Your task to perform on an android device: choose inbox layout in the gmail app Image 0: 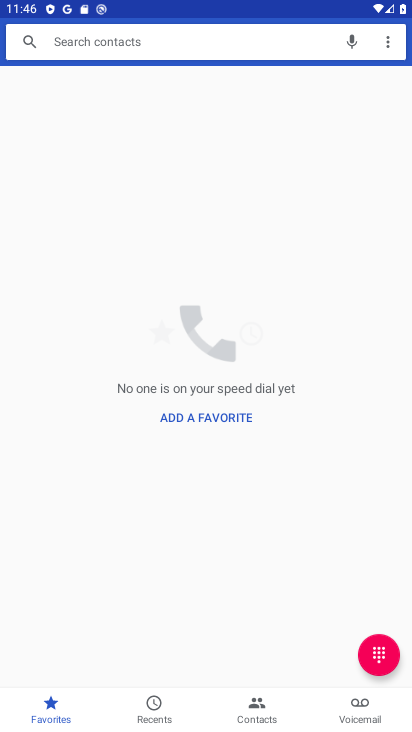
Step 0: drag from (300, 593) to (301, 179)
Your task to perform on an android device: choose inbox layout in the gmail app Image 1: 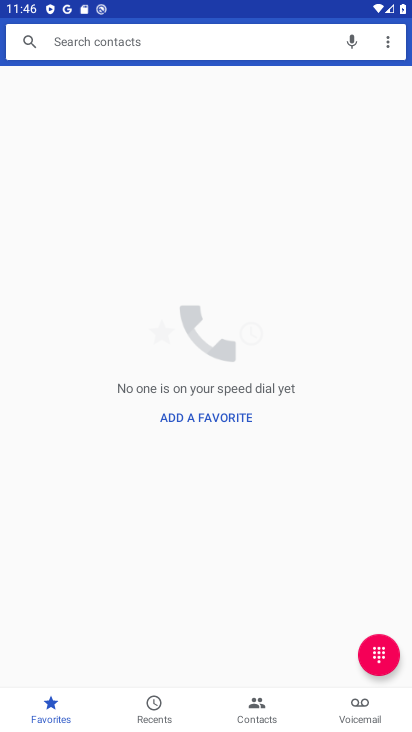
Step 1: press home button
Your task to perform on an android device: choose inbox layout in the gmail app Image 2: 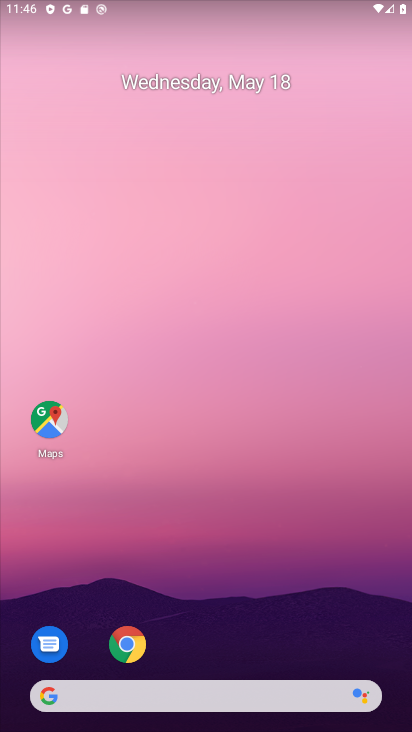
Step 2: drag from (332, 603) to (354, 221)
Your task to perform on an android device: choose inbox layout in the gmail app Image 3: 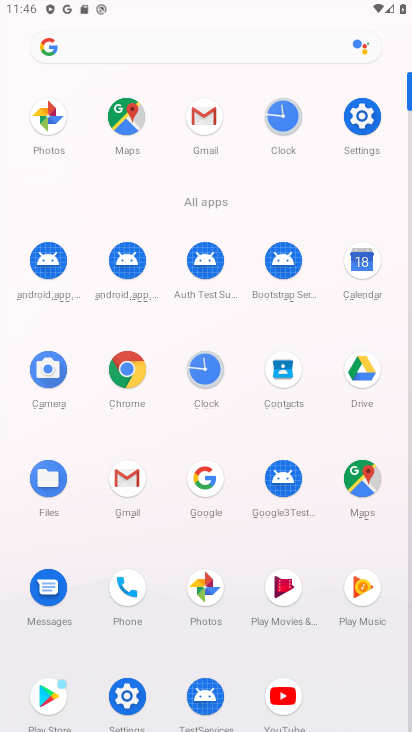
Step 3: click (130, 480)
Your task to perform on an android device: choose inbox layout in the gmail app Image 4: 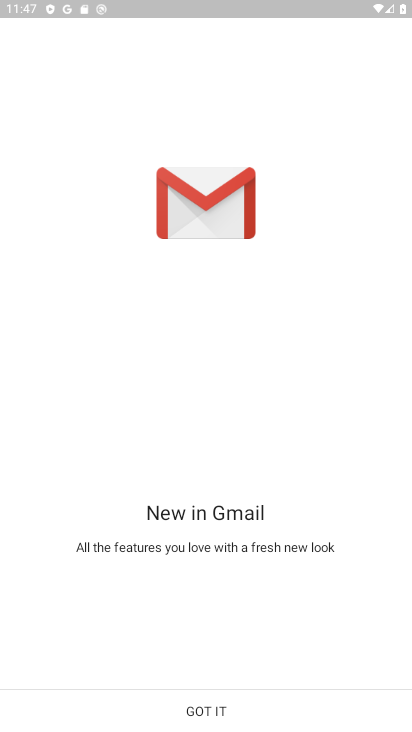
Step 4: click (218, 703)
Your task to perform on an android device: choose inbox layout in the gmail app Image 5: 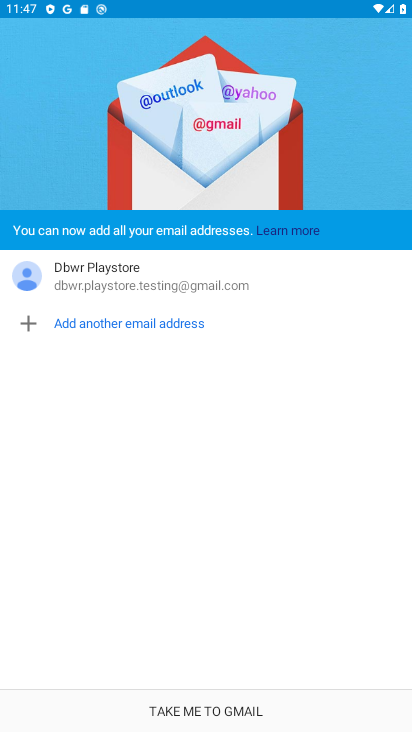
Step 5: click (198, 708)
Your task to perform on an android device: choose inbox layout in the gmail app Image 6: 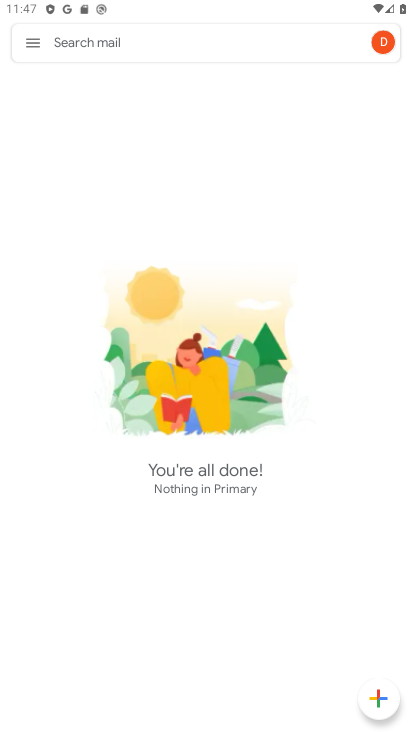
Step 6: click (28, 49)
Your task to perform on an android device: choose inbox layout in the gmail app Image 7: 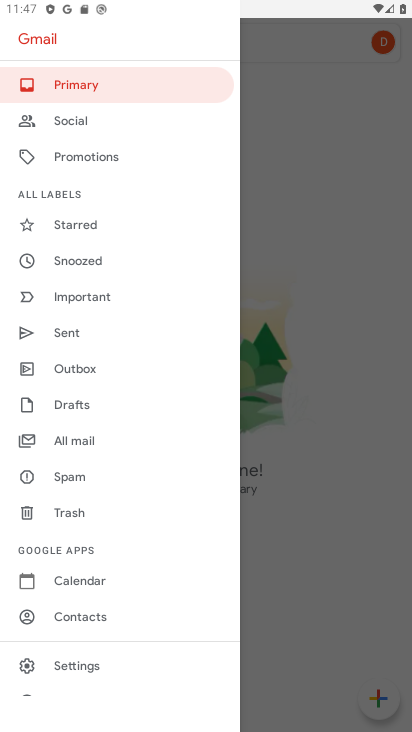
Step 7: click (105, 659)
Your task to perform on an android device: choose inbox layout in the gmail app Image 8: 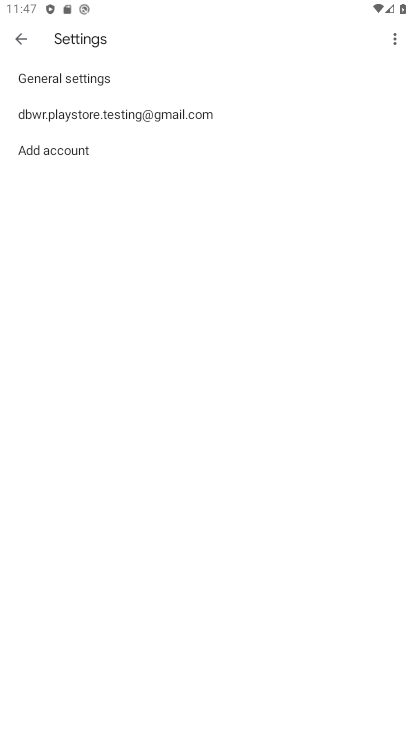
Step 8: click (138, 111)
Your task to perform on an android device: choose inbox layout in the gmail app Image 9: 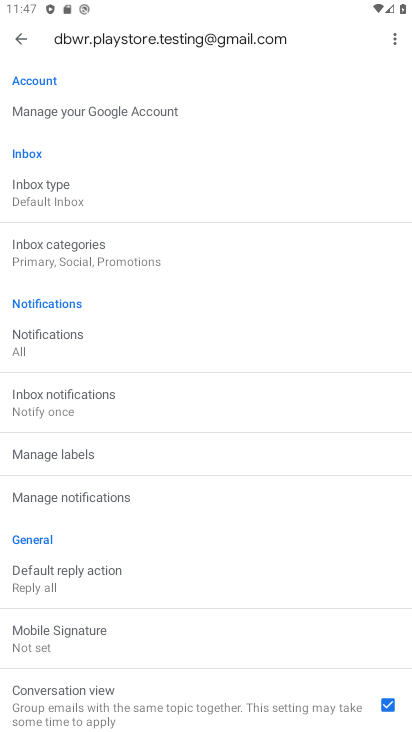
Step 9: click (94, 181)
Your task to perform on an android device: choose inbox layout in the gmail app Image 10: 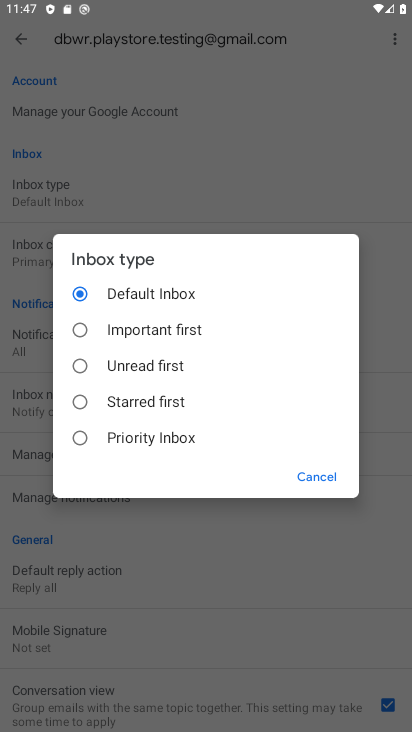
Step 10: click (126, 431)
Your task to perform on an android device: choose inbox layout in the gmail app Image 11: 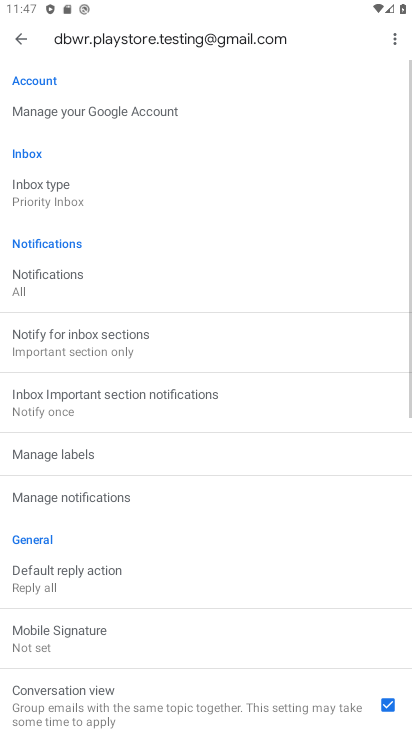
Step 11: task complete